Your task to perform on an android device: change keyboard looks Image 0: 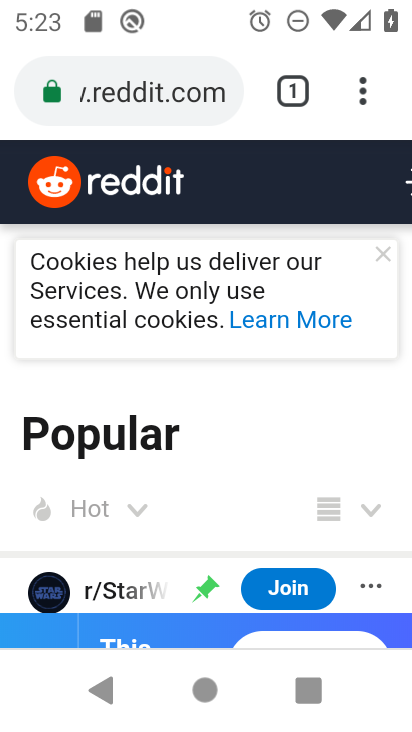
Step 0: press home button
Your task to perform on an android device: change keyboard looks Image 1: 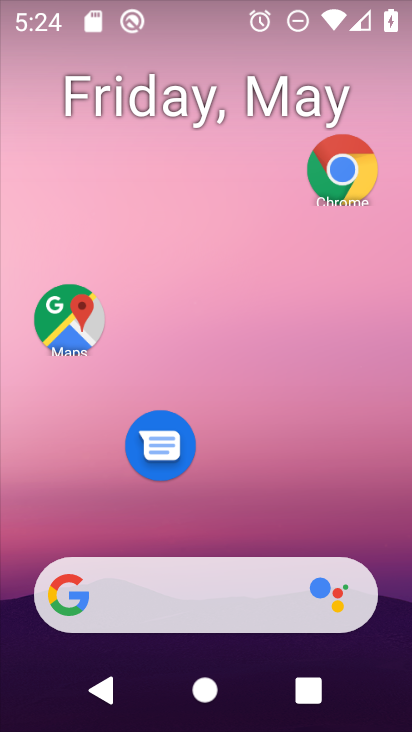
Step 1: drag from (233, 525) to (250, 56)
Your task to perform on an android device: change keyboard looks Image 2: 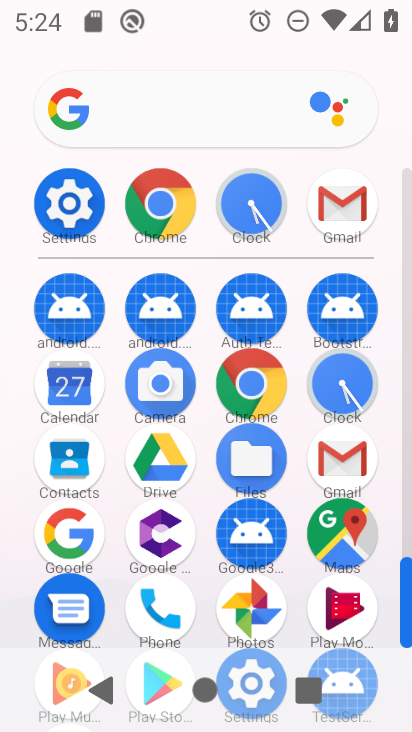
Step 2: click (62, 207)
Your task to perform on an android device: change keyboard looks Image 3: 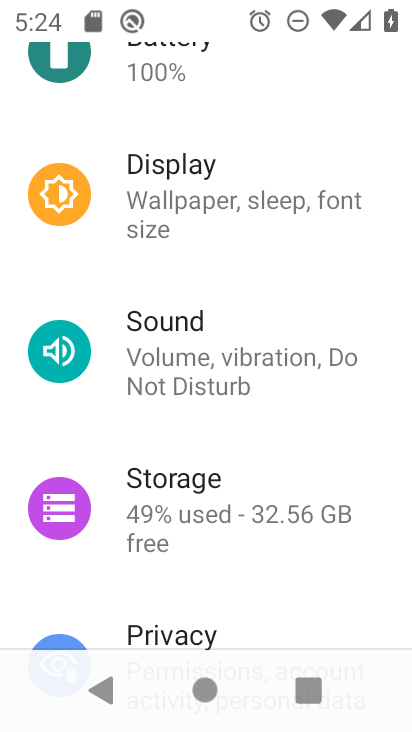
Step 3: drag from (169, 586) to (269, 81)
Your task to perform on an android device: change keyboard looks Image 4: 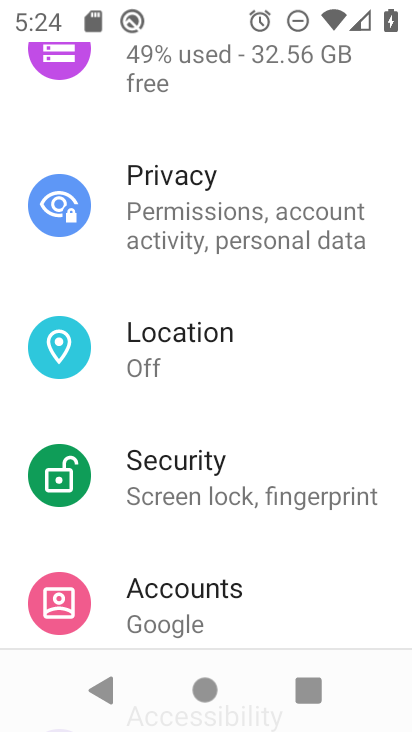
Step 4: drag from (209, 527) to (286, 136)
Your task to perform on an android device: change keyboard looks Image 5: 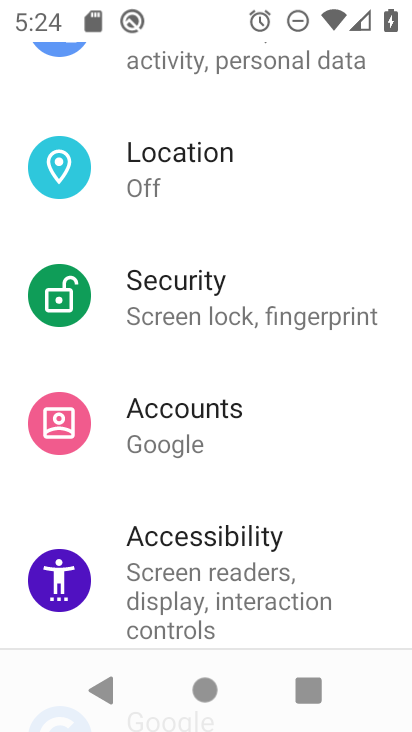
Step 5: drag from (212, 473) to (247, 119)
Your task to perform on an android device: change keyboard looks Image 6: 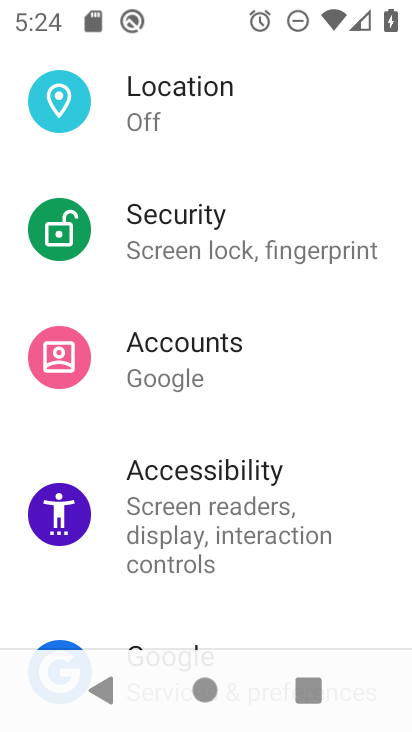
Step 6: drag from (228, 416) to (282, 97)
Your task to perform on an android device: change keyboard looks Image 7: 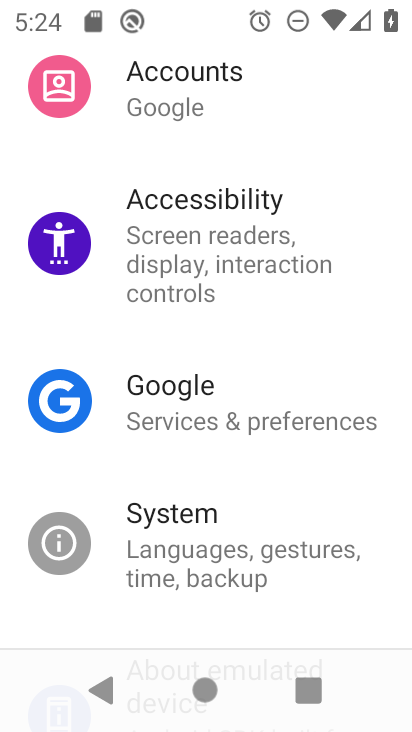
Step 7: click (207, 554)
Your task to perform on an android device: change keyboard looks Image 8: 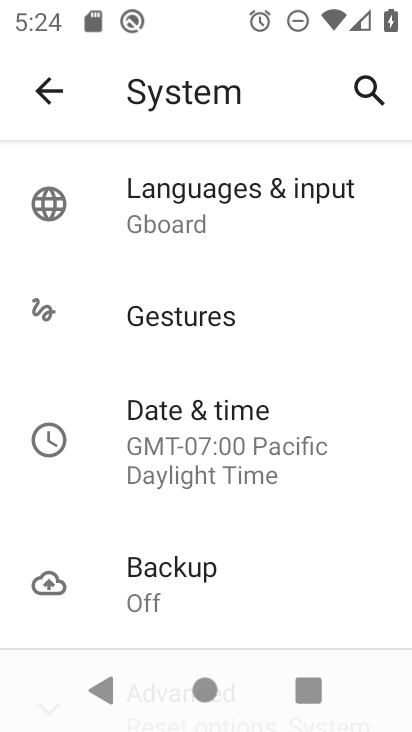
Step 8: click (178, 200)
Your task to perform on an android device: change keyboard looks Image 9: 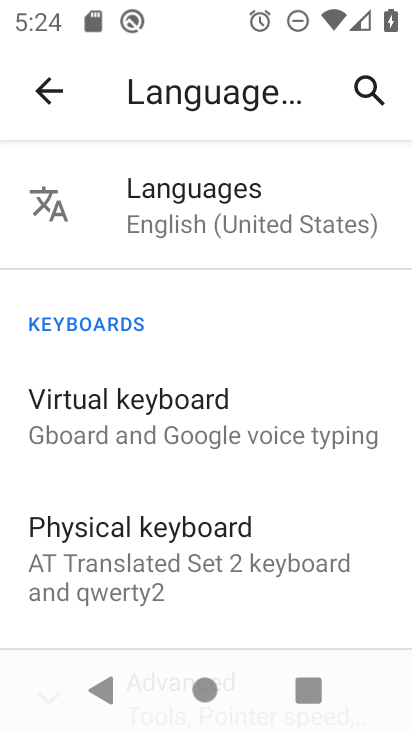
Step 9: click (153, 404)
Your task to perform on an android device: change keyboard looks Image 10: 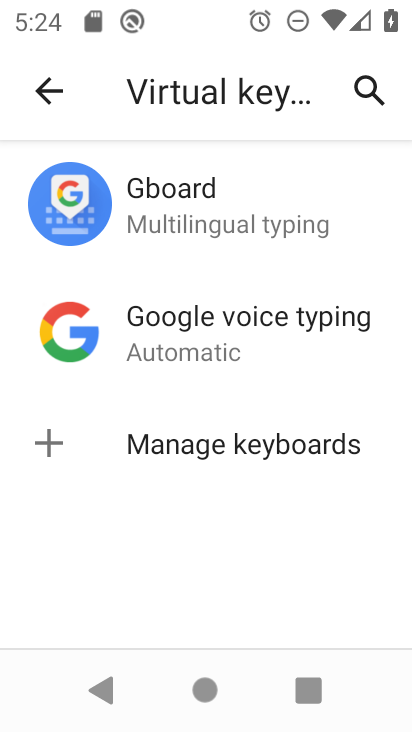
Step 10: click (159, 225)
Your task to perform on an android device: change keyboard looks Image 11: 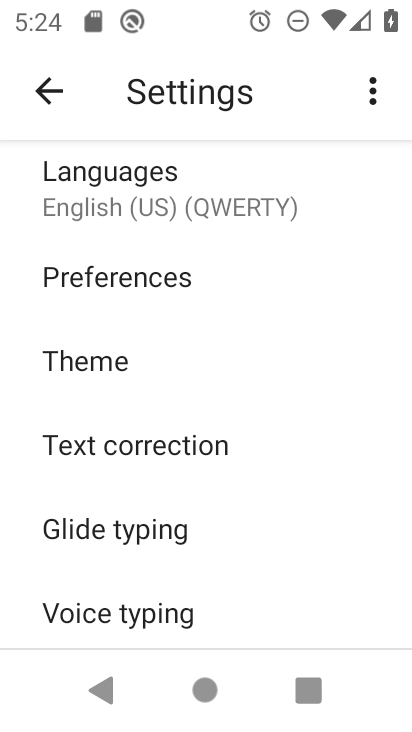
Step 11: click (94, 358)
Your task to perform on an android device: change keyboard looks Image 12: 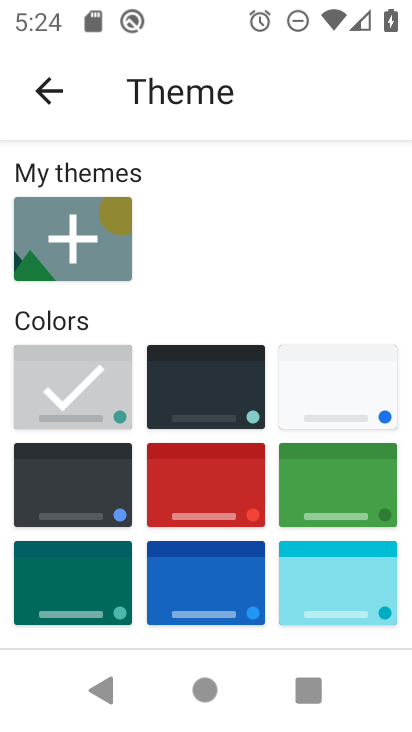
Step 12: click (193, 387)
Your task to perform on an android device: change keyboard looks Image 13: 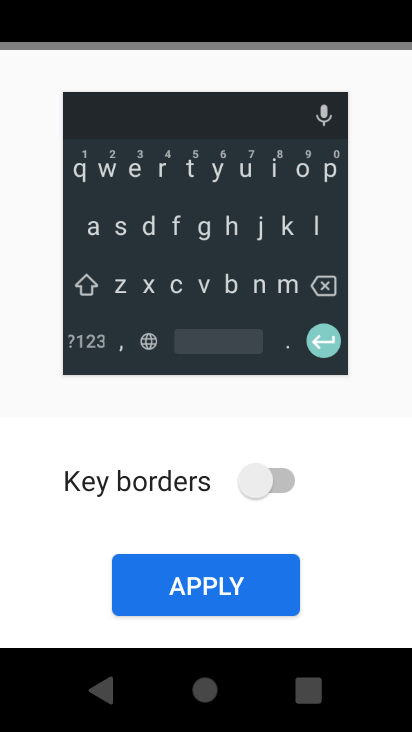
Step 13: click (191, 581)
Your task to perform on an android device: change keyboard looks Image 14: 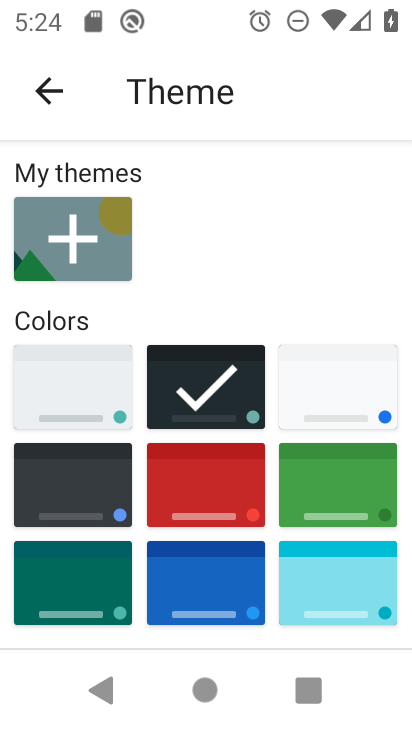
Step 14: task complete